Your task to perform on an android device: turn off priority inbox in the gmail app Image 0: 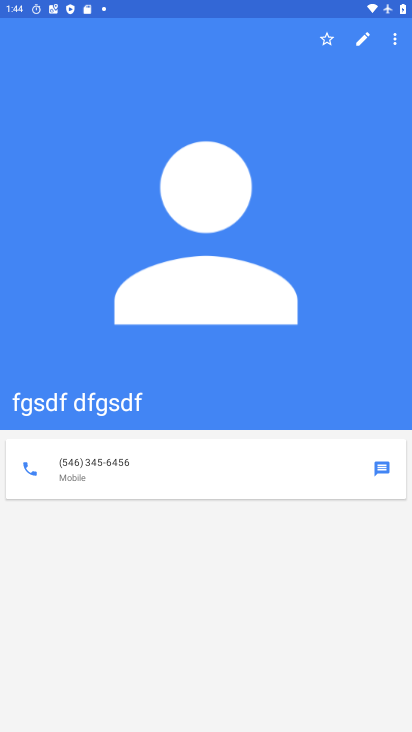
Step 0: press home button
Your task to perform on an android device: turn off priority inbox in the gmail app Image 1: 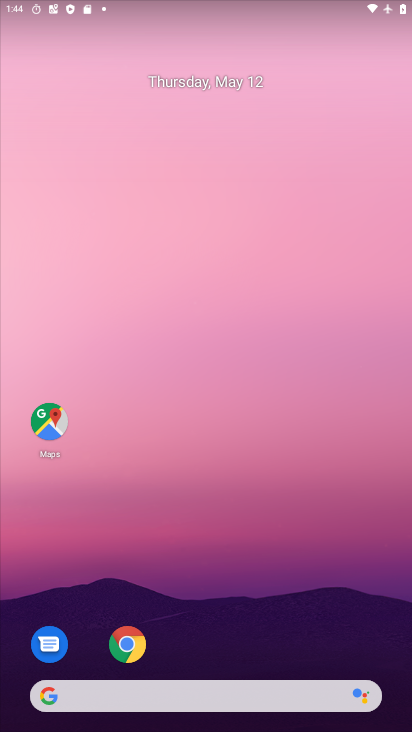
Step 1: drag from (293, 603) to (246, 175)
Your task to perform on an android device: turn off priority inbox in the gmail app Image 2: 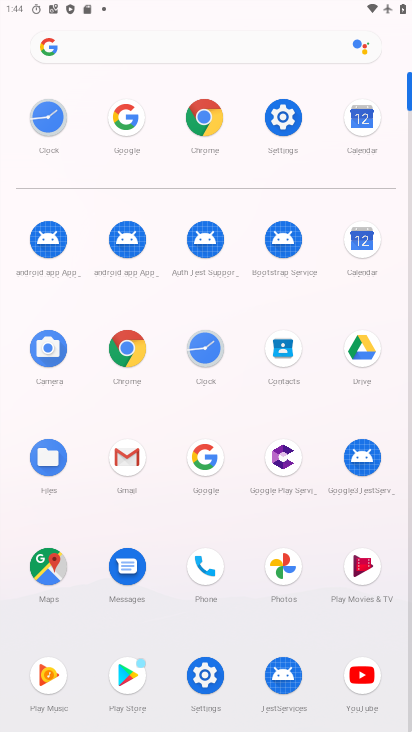
Step 2: click (116, 460)
Your task to perform on an android device: turn off priority inbox in the gmail app Image 3: 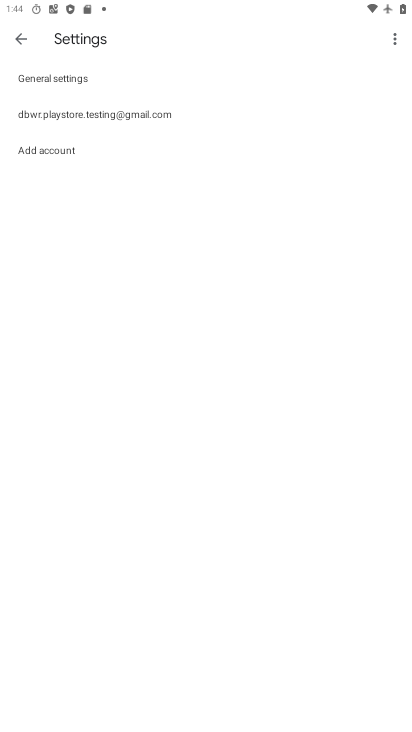
Step 3: click (69, 117)
Your task to perform on an android device: turn off priority inbox in the gmail app Image 4: 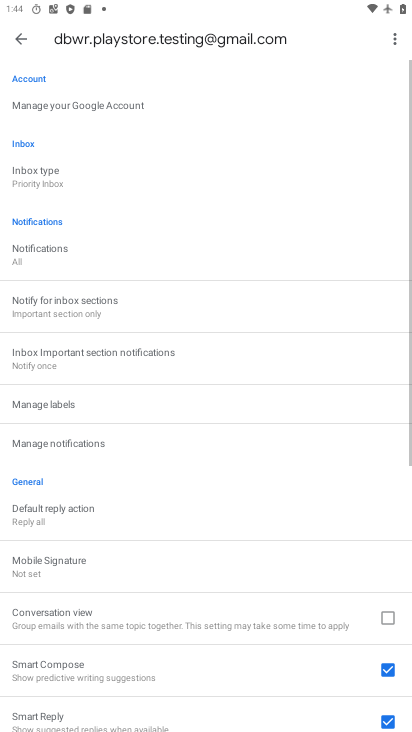
Step 4: click (67, 180)
Your task to perform on an android device: turn off priority inbox in the gmail app Image 5: 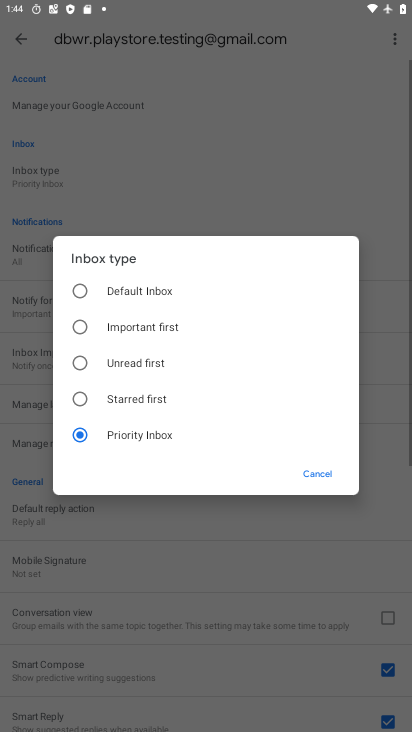
Step 5: click (140, 297)
Your task to perform on an android device: turn off priority inbox in the gmail app Image 6: 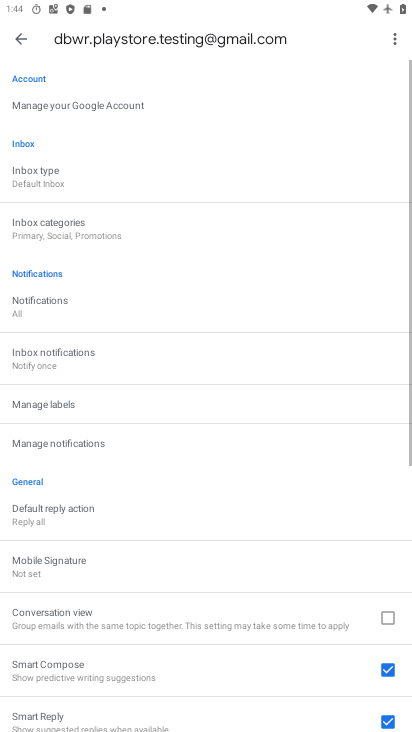
Step 6: task complete